Your task to perform on an android device: Add "logitech g933" to the cart on costco Image 0: 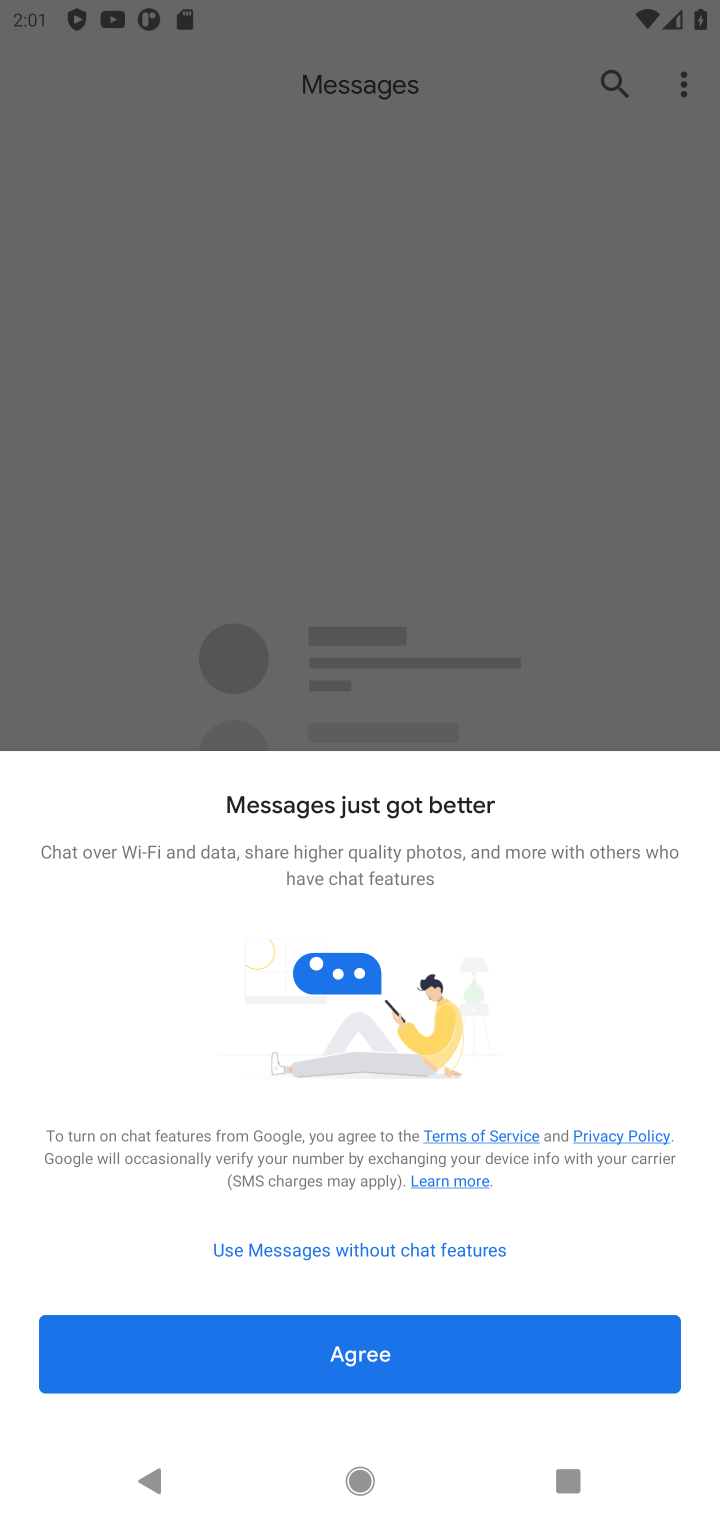
Step 0: press home button
Your task to perform on an android device: Add "logitech g933" to the cart on costco Image 1: 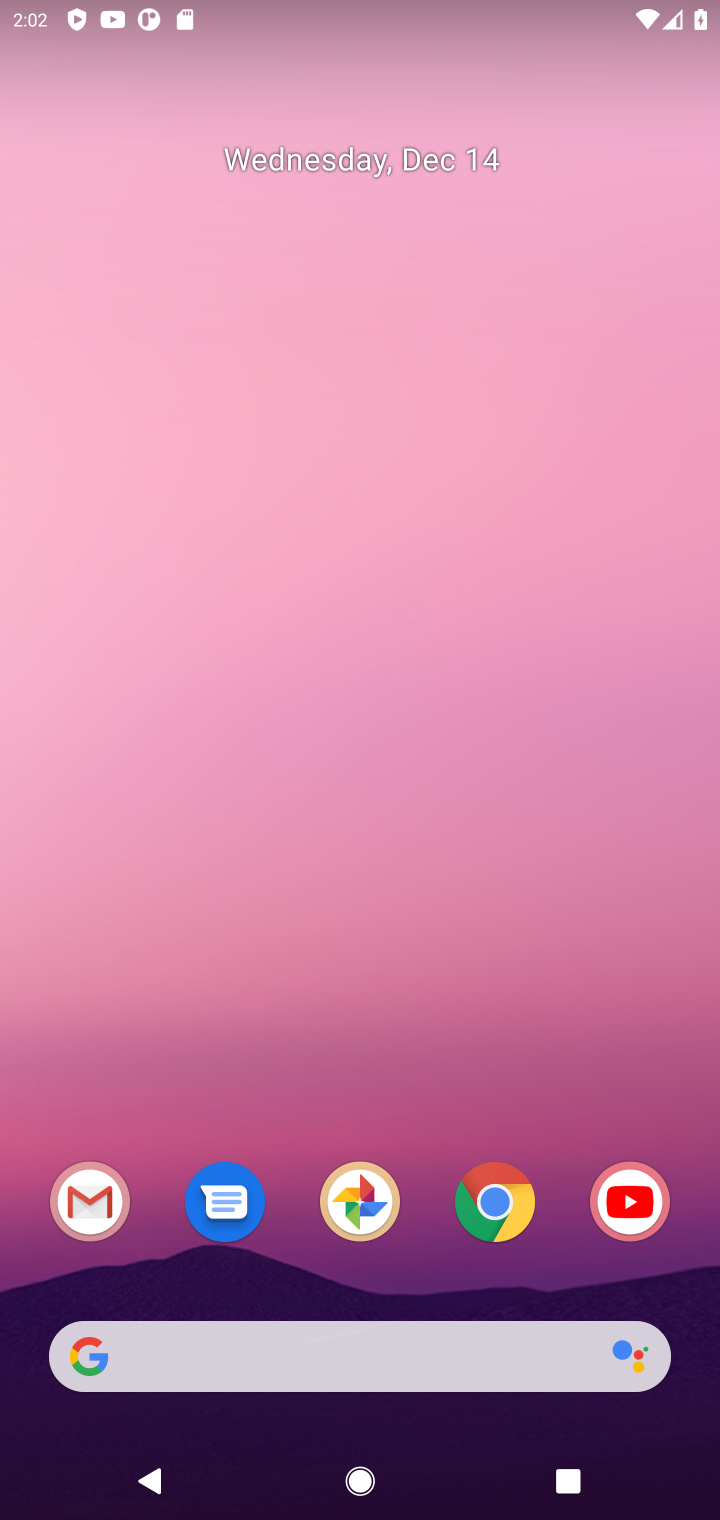
Step 1: click (481, 1201)
Your task to perform on an android device: Add "logitech g933" to the cart on costco Image 2: 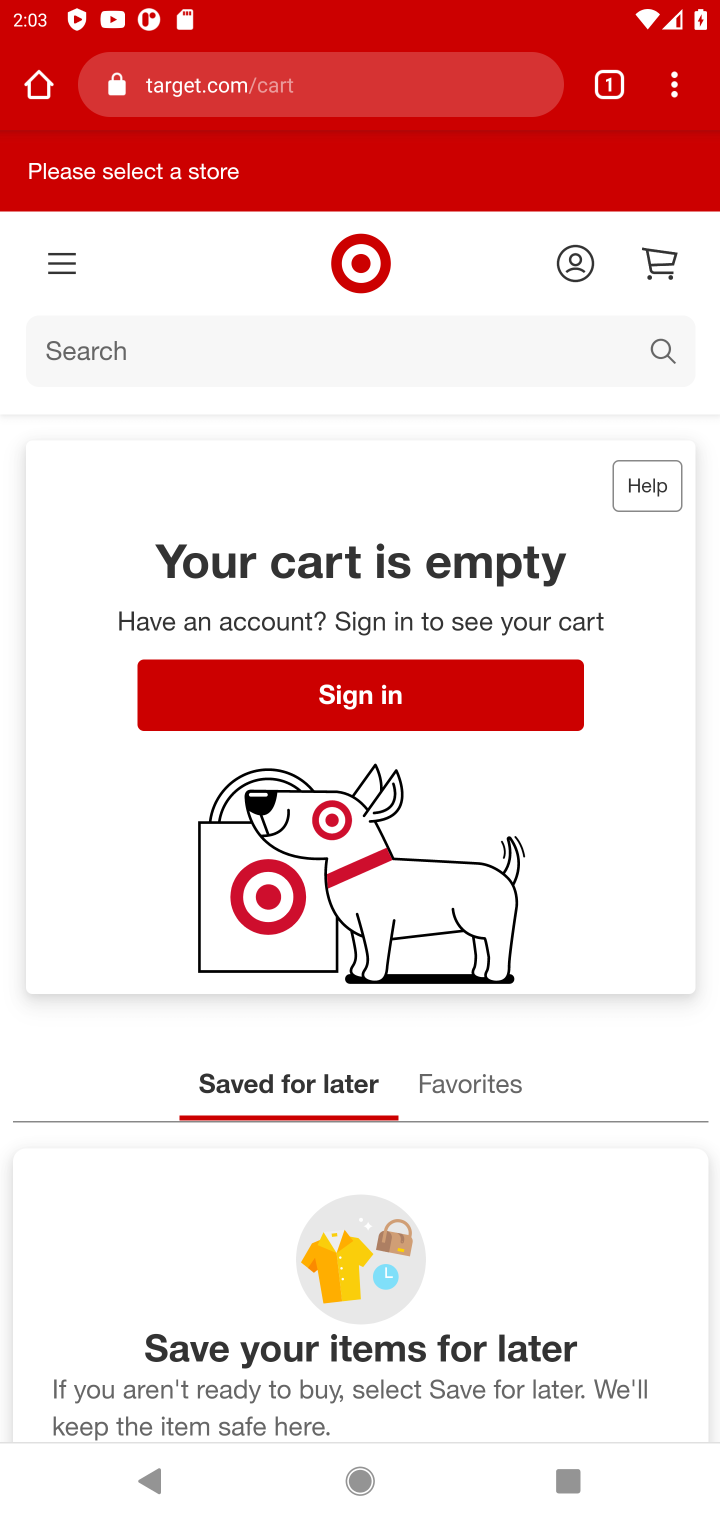
Step 2: task complete